Your task to perform on an android device: turn off notifications settings in the gmail app Image 0: 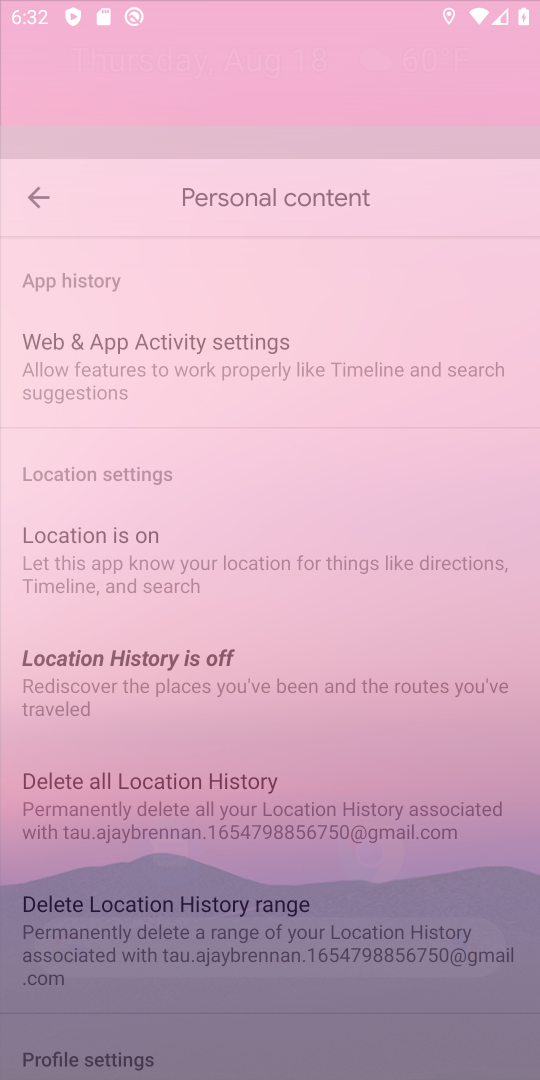
Step 0: press home button
Your task to perform on an android device: turn off notifications settings in the gmail app Image 1: 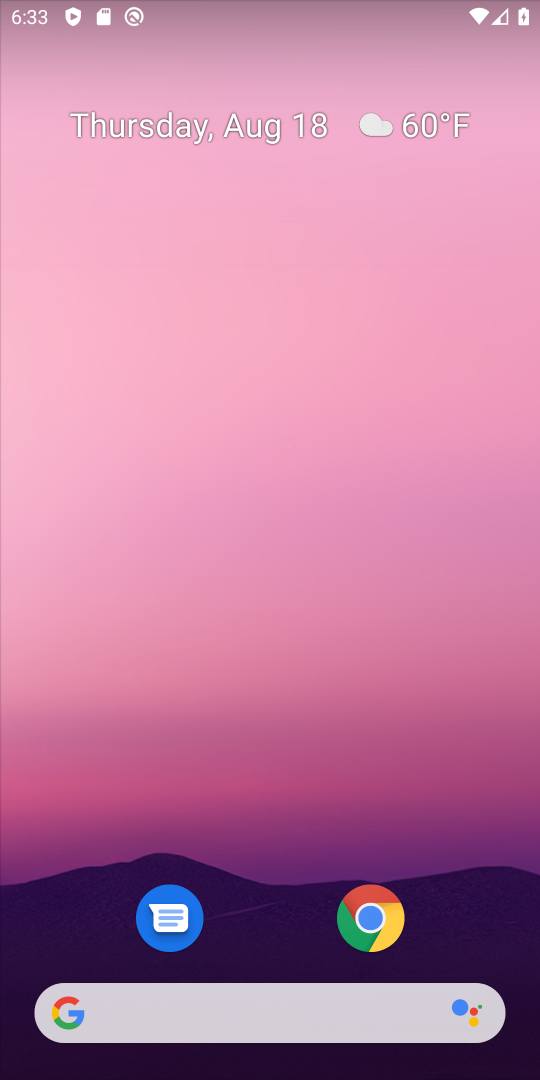
Step 1: drag from (281, 796) to (252, 74)
Your task to perform on an android device: turn off notifications settings in the gmail app Image 2: 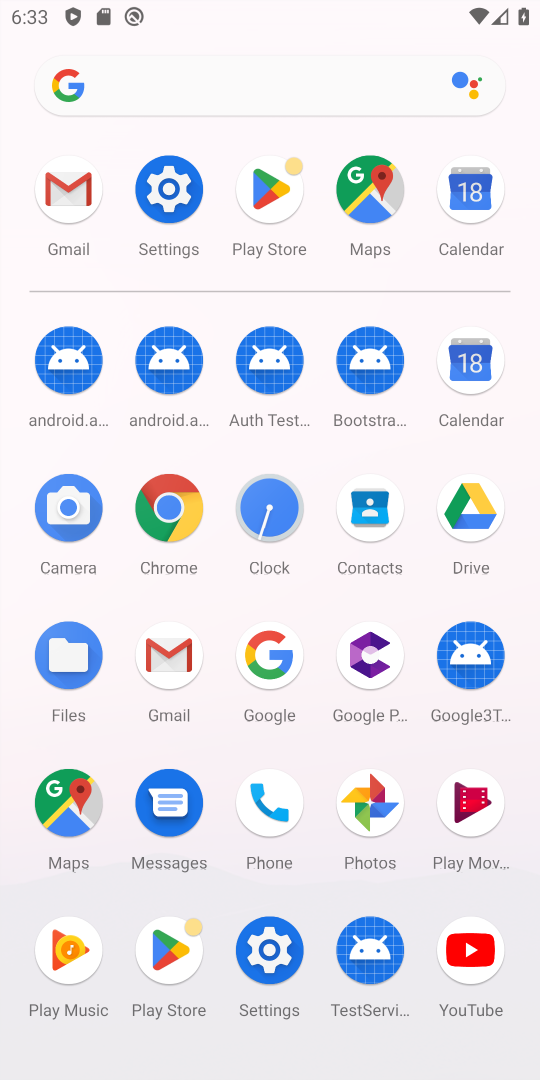
Step 2: click (71, 200)
Your task to perform on an android device: turn off notifications settings in the gmail app Image 3: 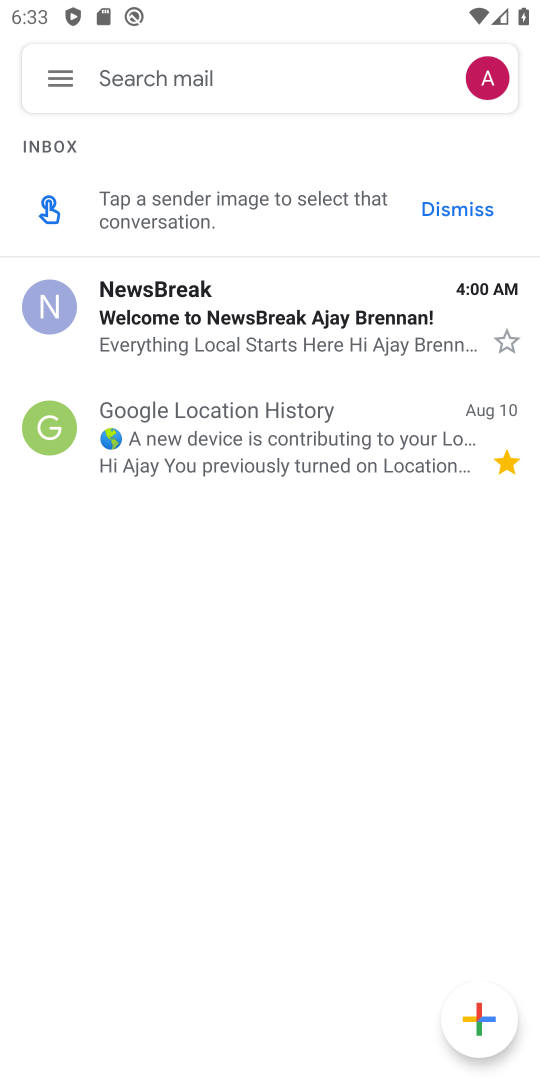
Step 3: click (49, 79)
Your task to perform on an android device: turn off notifications settings in the gmail app Image 4: 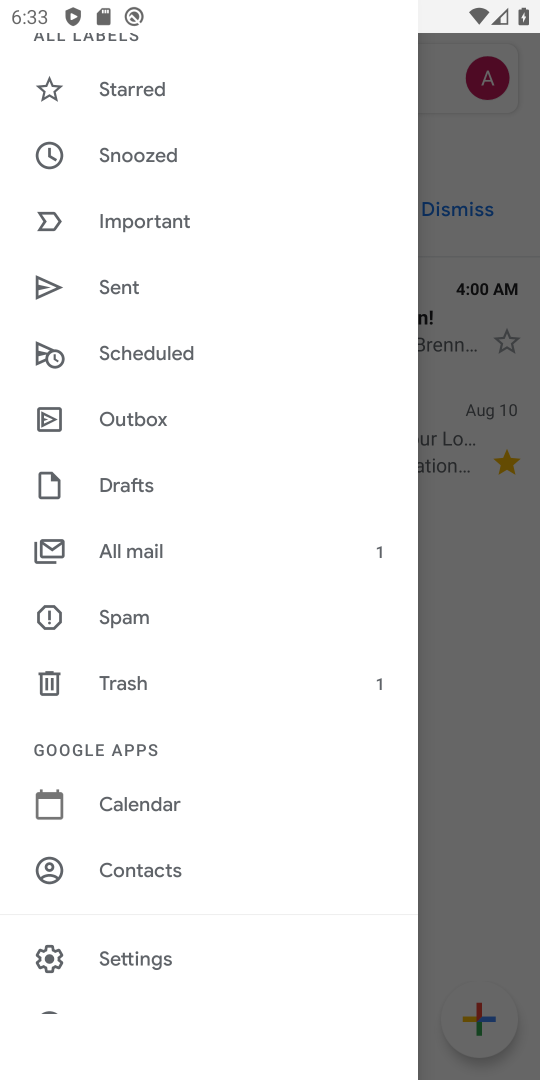
Step 4: click (131, 958)
Your task to perform on an android device: turn off notifications settings in the gmail app Image 5: 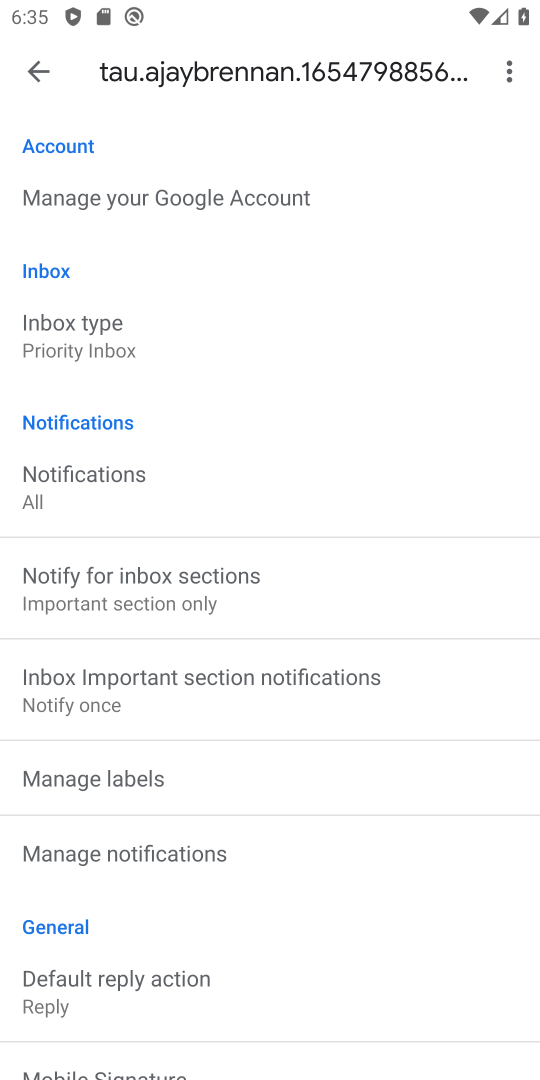
Step 5: drag from (285, 243) to (316, 1027)
Your task to perform on an android device: turn off notifications settings in the gmail app Image 6: 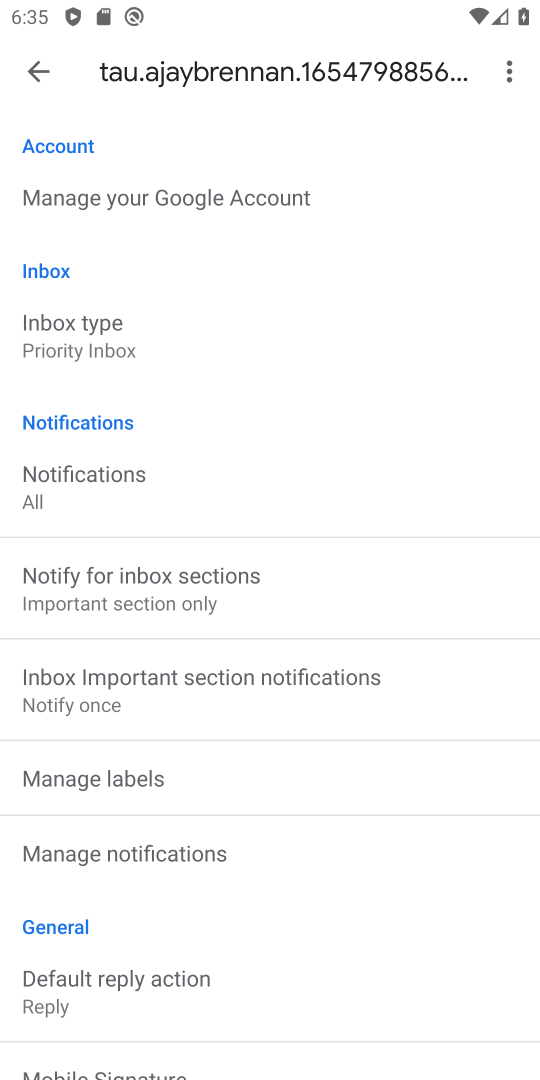
Step 6: drag from (295, 882) to (160, 845)
Your task to perform on an android device: turn off notifications settings in the gmail app Image 7: 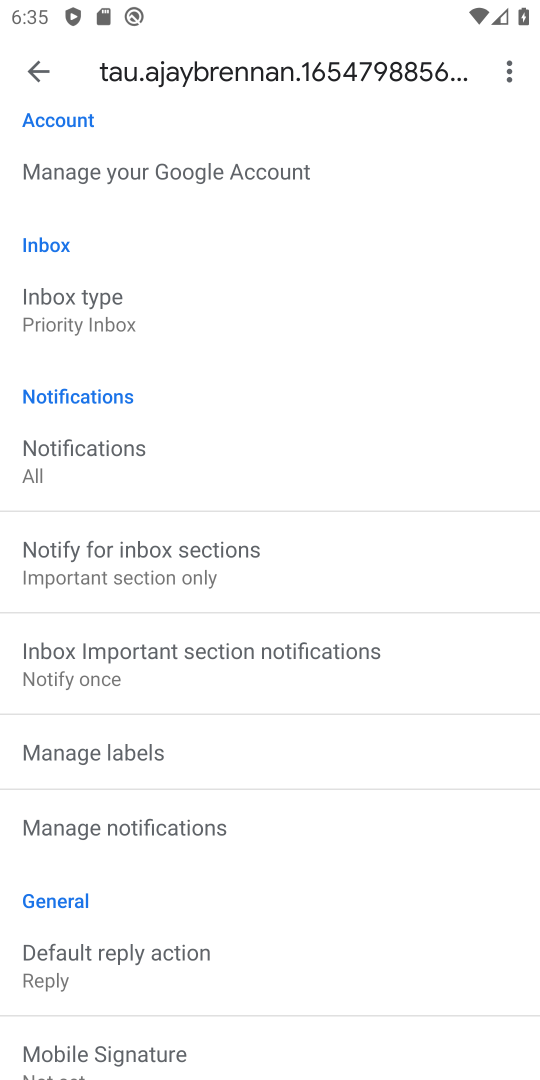
Step 7: click (160, 826)
Your task to perform on an android device: turn off notifications settings in the gmail app Image 8: 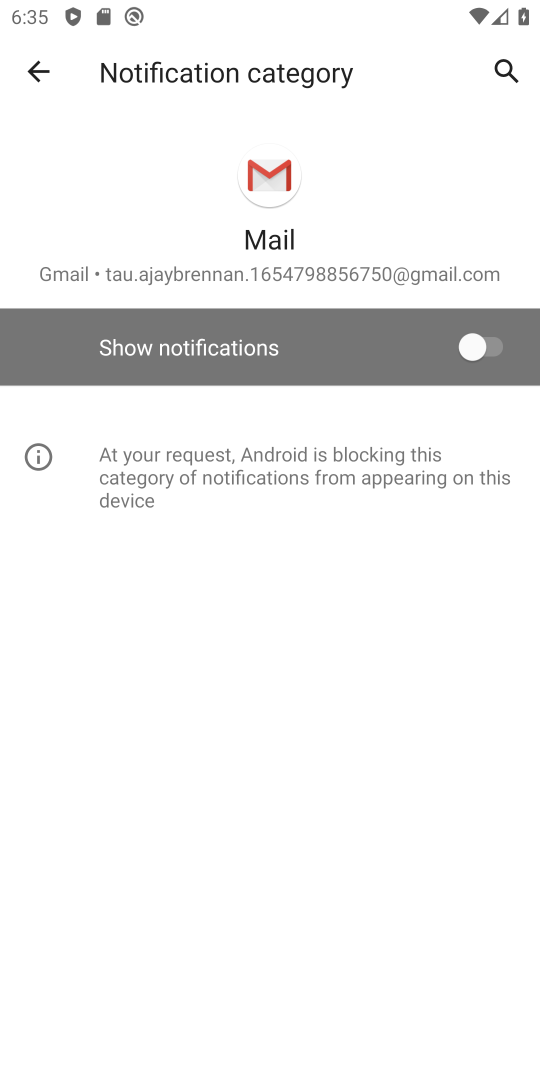
Step 8: task complete